Your task to perform on an android device: Go to ESPN.com Image 0: 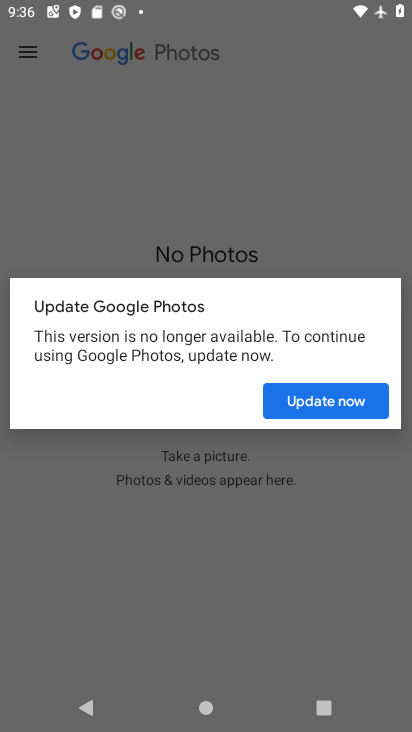
Step 0: press home button
Your task to perform on an android device: Go to ESPN.com Image 1: 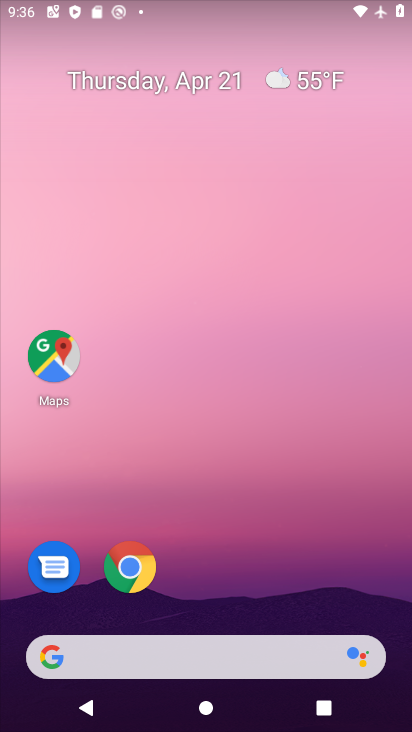
Step 1: click (132, 570)
Your task to perform on an android device: Go to ESPN.com Image 2: 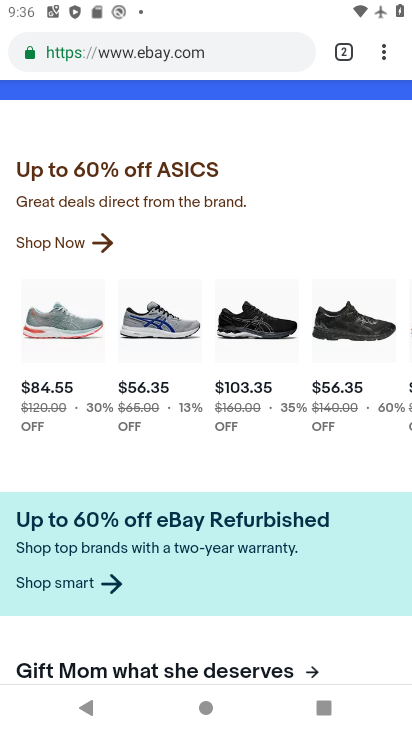
Step 2: click (224, 50)
Your task to perform on an android device: Go to ESPN.com Image 3: 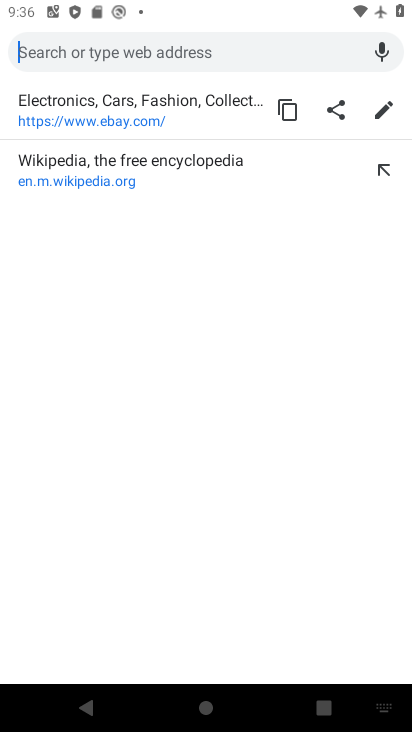
Step 3: type "espn.com"
Your task to perform on an android device: Go to ESPN.com Image 4: 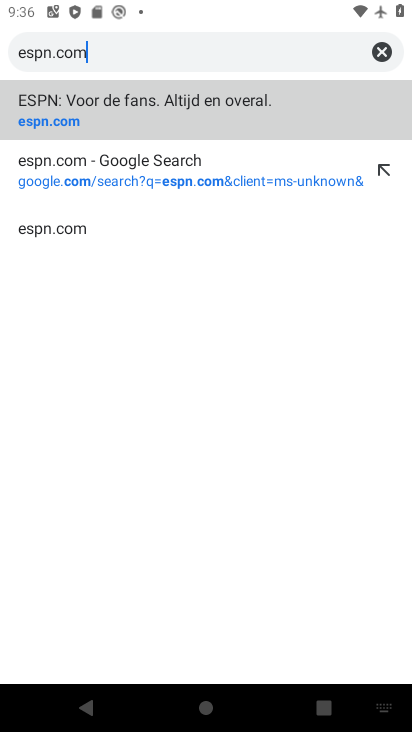
Step 4: click (47, 96)
Your task to perform on an android device: Go to ESPN.com Image 5: 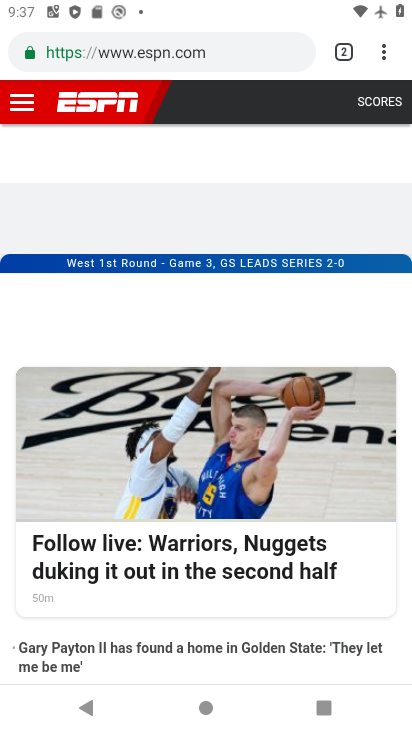
Step 5: task complete